Your task to perform on an android device: Check the weather Image 0: 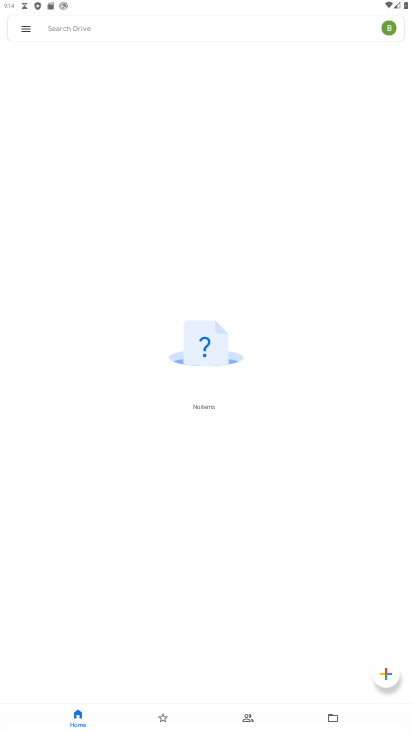
Step 0: press home button
Your task to perform on an android device: Check the weather Image 1: 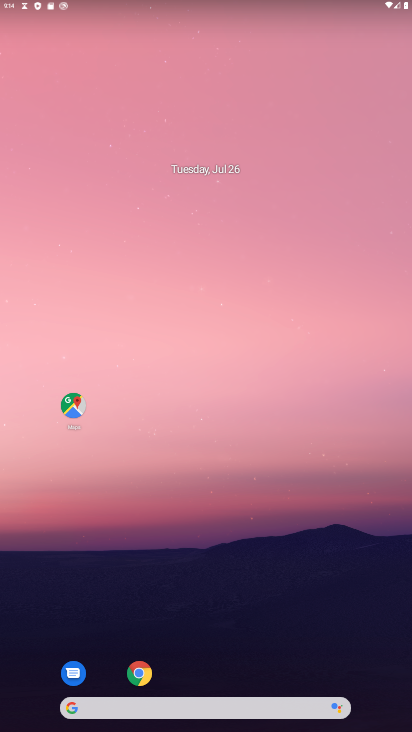
Step 1: drag from (157, 706) to (409, 107)
Your task to perform on an android device: Check the weather Image 2: 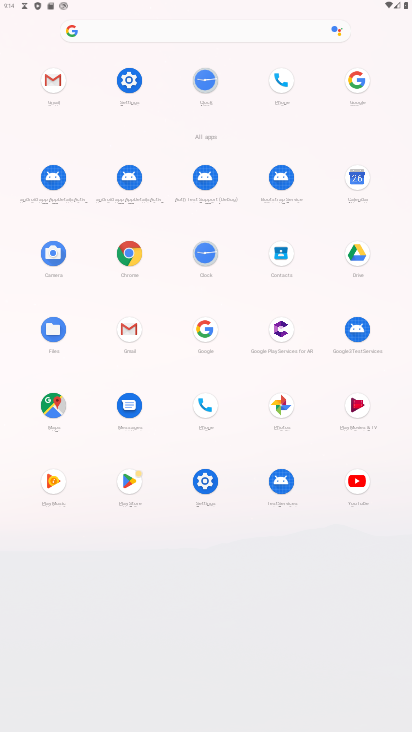
Step 2: click (355, 80)
Your task to perform on an android device: Check the weather Image 3: 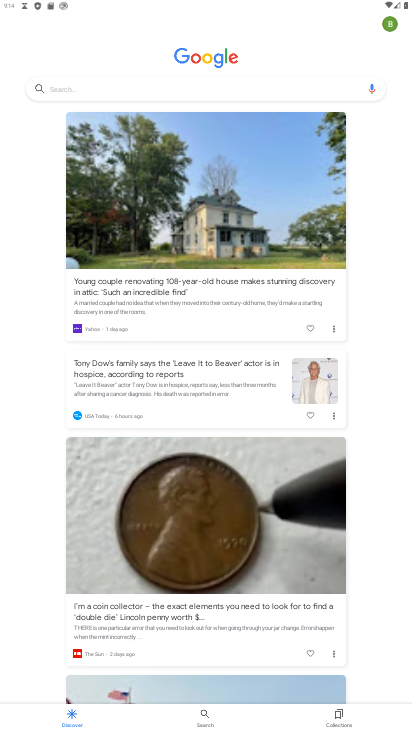
Step 3: click (283, 82)
Your task to perform on an android device: Check the weather Image 4: 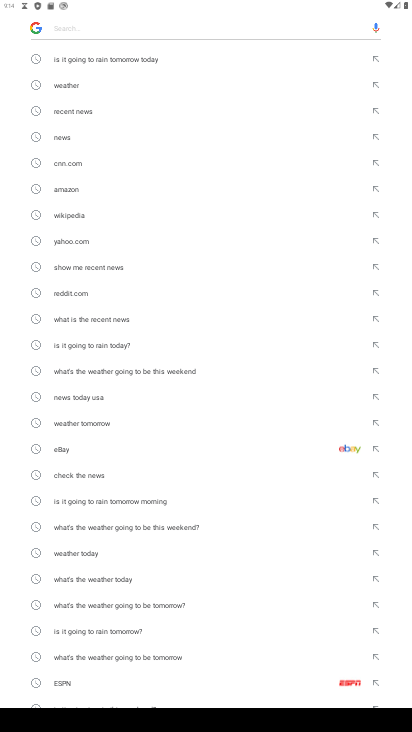
Step 4: type "weather"
Your task to perform on an android device: Check the weather Image 5: 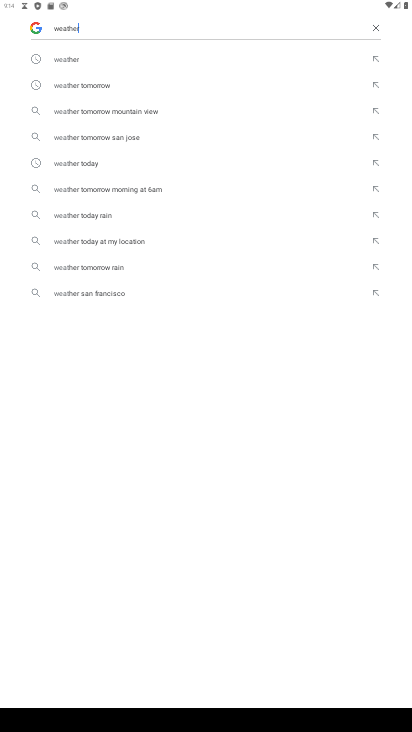
Step 5: type ""
Your task to perform on an android device: Check the weather Image 6: 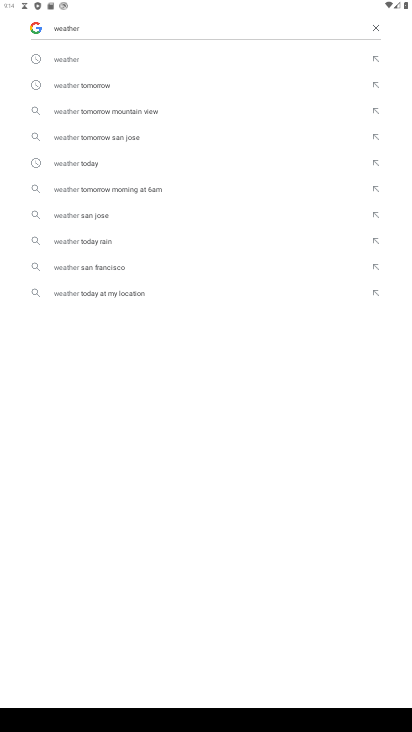
Step 6: click (64, 55)
Your task to perform on an android device: Check the weather Image 7: 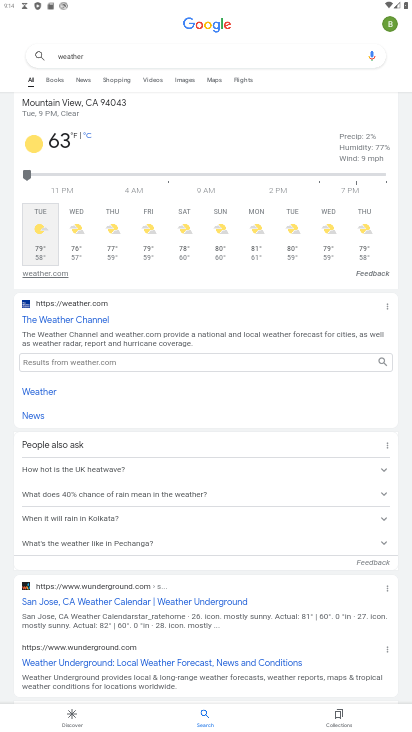
Step 7: task complete